Your task to perform on an android device: Is it going to rain this weekend? Image 0: 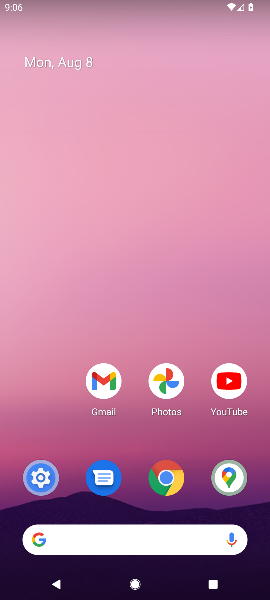
Step 0: press home button
Your task to perform on an android device: Is it going to rain this weekend? Image 1: 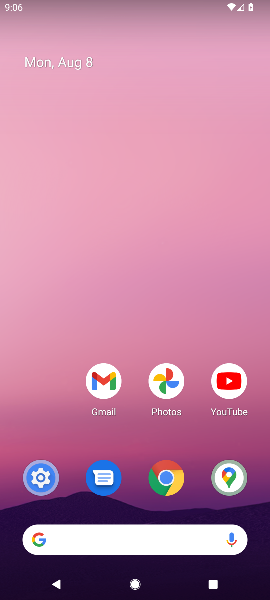
Step 1: click (90, 537)
Your task to perform on an android device: Is it going to rain this weekend? Image 2: 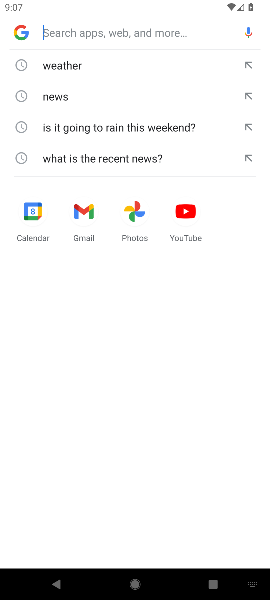
Step 2: click (61, 61)
Your task to perform on an android device: Is it going to rain this weekend? Image 3: 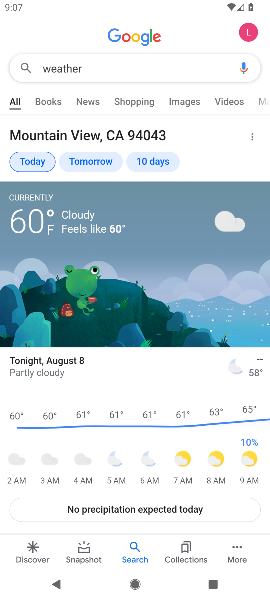
Step 3: click (147, 161)
Your task to perform on an android device: Is it going to rain this weekend? Image 4: 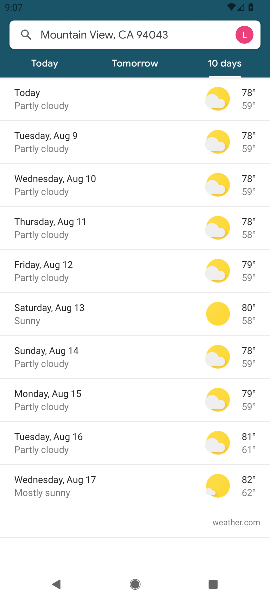
Step 4: click (40, 320)
Your task to perform on an android device: Is it going to rain this weekend? Image 5: 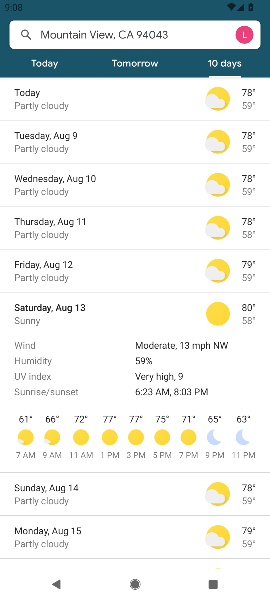
Step 5: task complete